Your task to perform on an android device: Open privacy settings Image 0: 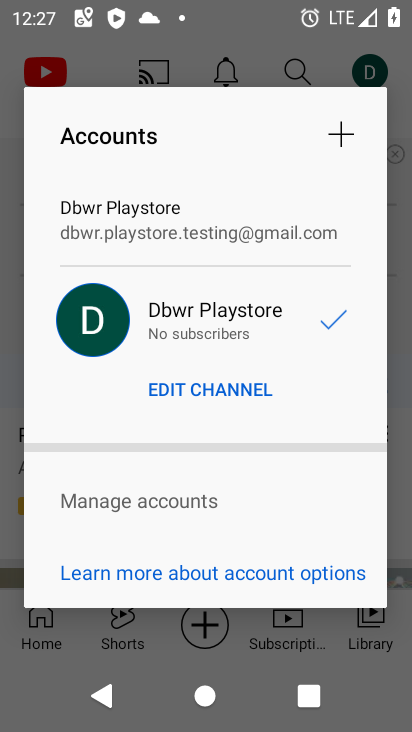
Step 0: press home button
Your task to perform on an android device: Open privacy settings Image 1: 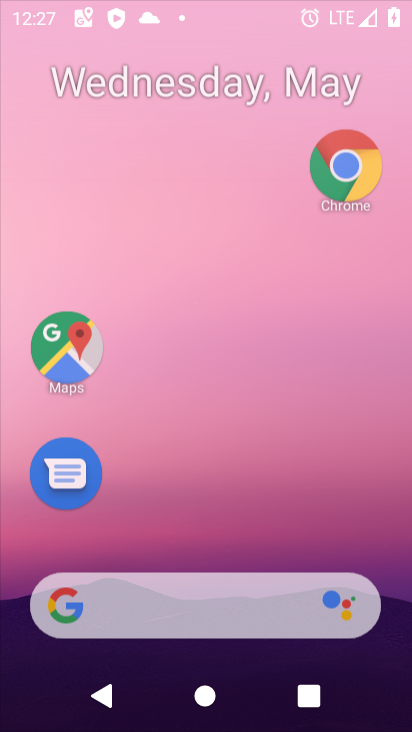
Step 1: drag from (164, 557) to (257, 3)
Your task to perform on an android device: Open privacy settings Image 2: 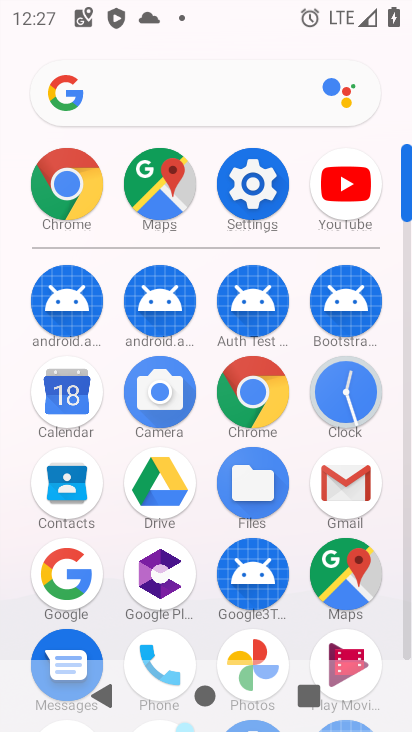
Step 2: click (248, 164)
Your task to perform on an android device: Open privacy settings Image 3: 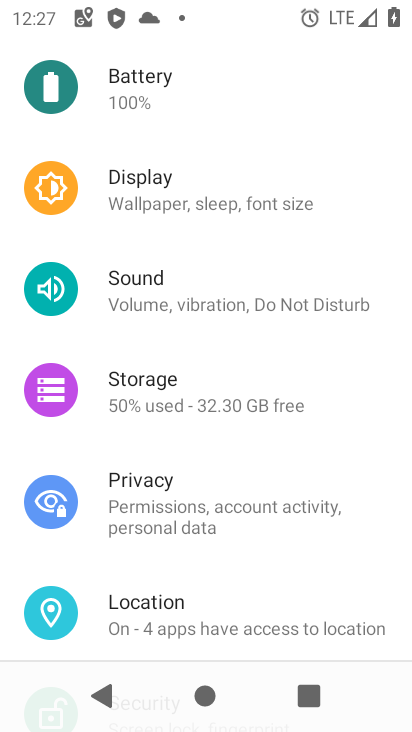
Step 3: click (168, 475)
Your task to perform on an android device: Open privacy settings Image 4: 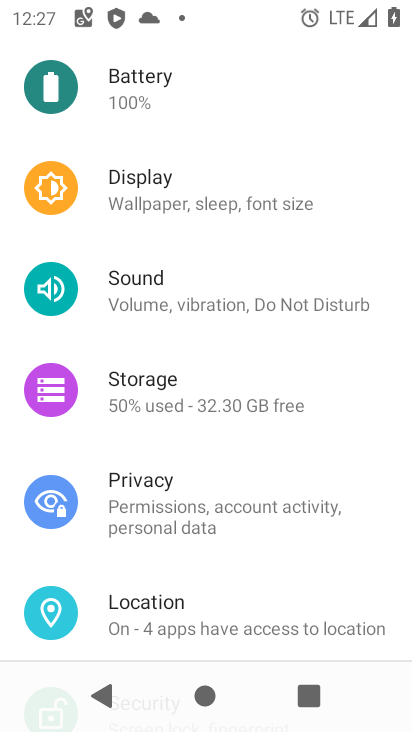
Step 4: click (168, 475)
Your task to perform on an android device: Open privacy settings Image 5: 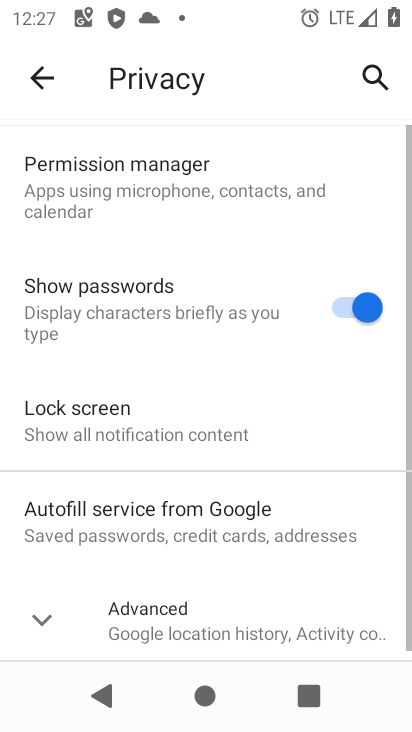
Step 5: task complete